Your task to perform on an android device: Open calendar and show me the first week of next month Image 0: 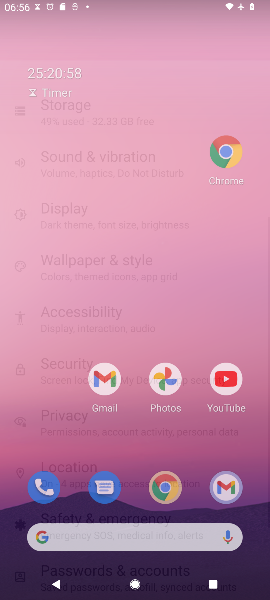
Step 0: press home button
Your task to perform on an android device: Open calendar and show me the first week of next month Image 1: 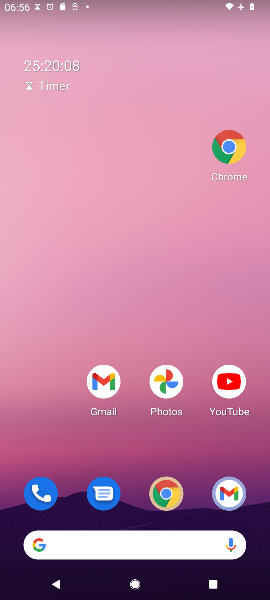
Step 1: drag from (145, 516) to (197, 238)
Your task to perform on an android device: Open calendar and show me the first week of next month Image 2: 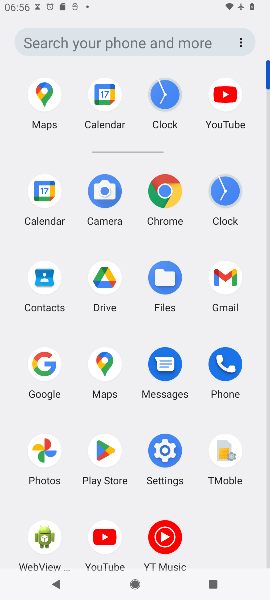
Step 2: click (108, 104)
Your task to perform on an android device: Open calendar and show me the first week of next month Image 3: 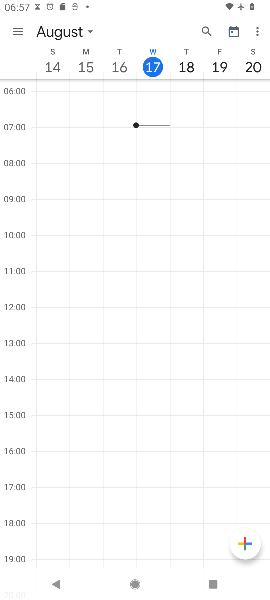
Step 3: click (89, 32)
Your task to perform on an android device: Open calendar and show me the first week of next month Image 4: 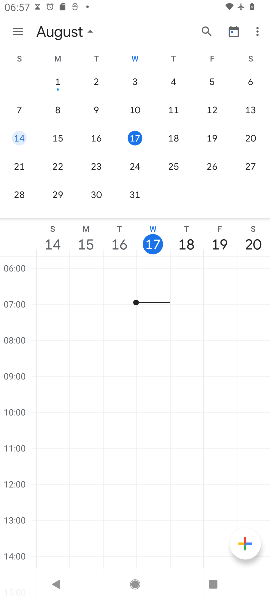
Step 4: drag from (194, 120) to (0, 115)
Your task to perform on an android device: Open calendar and show me the first week of next month Image 5: 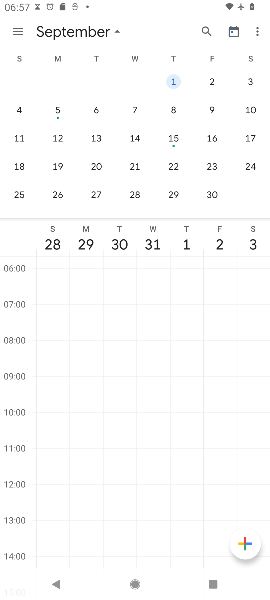
Step 5: click (210, 84)
Your task to perform on an android device: Open calendar and show me the first week of next month Image 6: 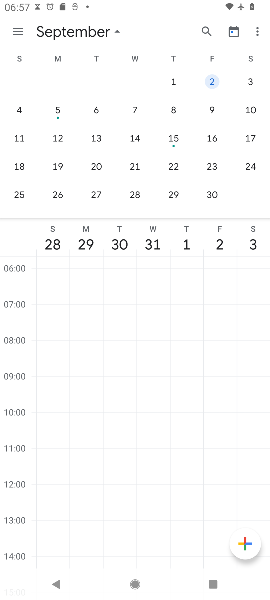
Step 6: click (252, 89)
Your task to perform on an android device: Open calendar and show me the first week of next month Image 7: 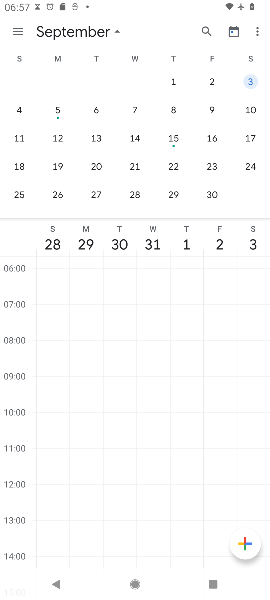
Step 7: task complete